Your task to perform on an android device: Open Yahoo.com Image 0: 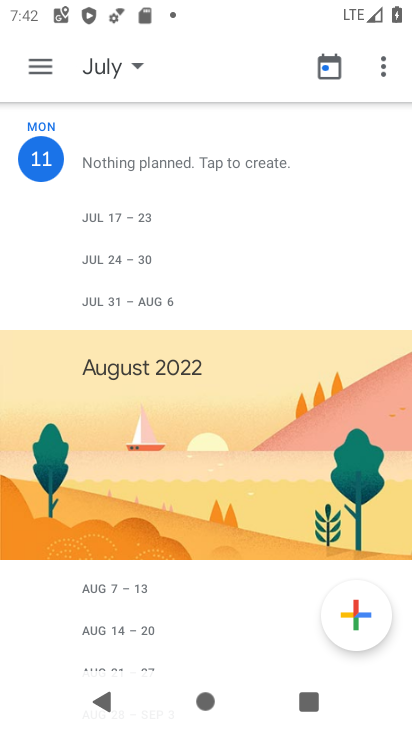
Step 0: press home button
Your task to perform on an android device: Open Yahoo.com Image 1: 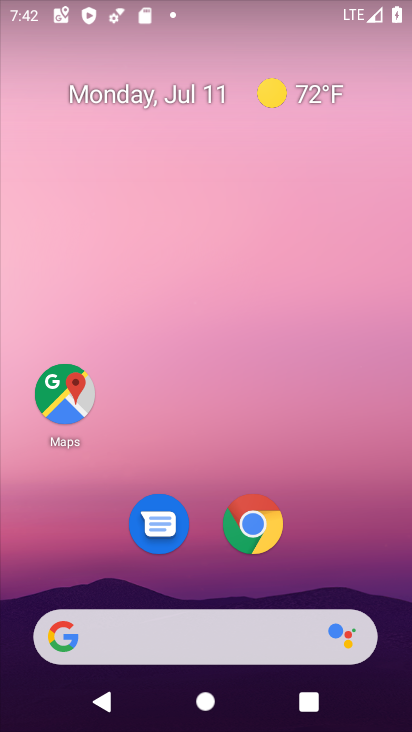
Step 1: click (272, 636)
Your task to perform on an android device: Open Yahoo.com Image 2: 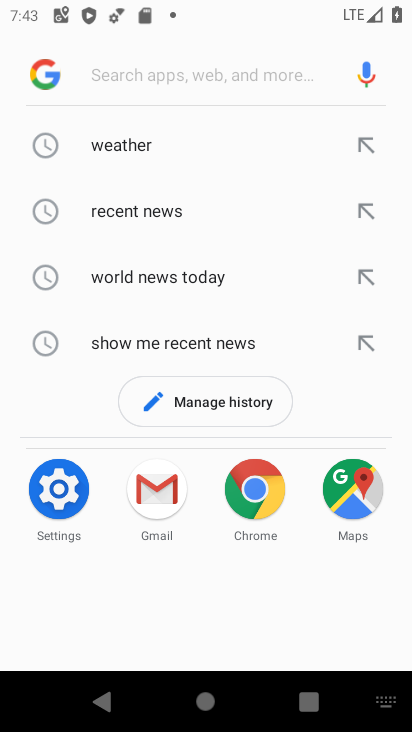
Step 2: type "yahoo.com"
Your task to perform on an android device: Open Yahoo.com Image 3: 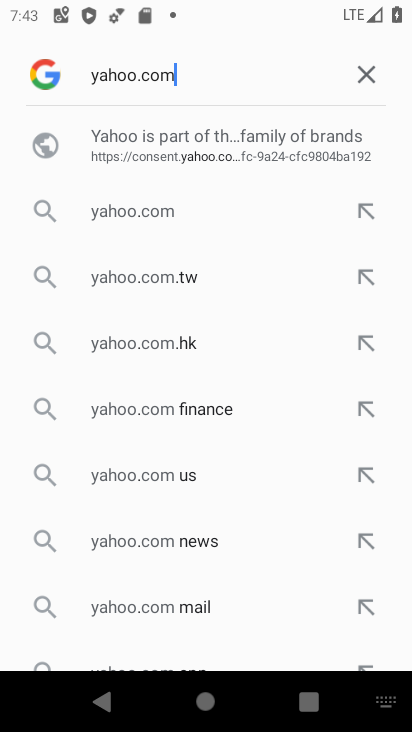
Step 3: click (115, 202)
Your task to perform on an android device: Open Yahoo.com Image 4: 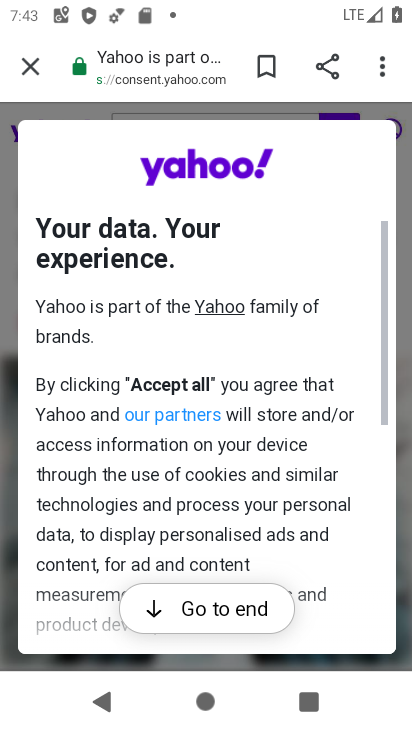
Step 4: click (224, 617)
Your task to perform on an android device: Open Yahoo.com Image 5: 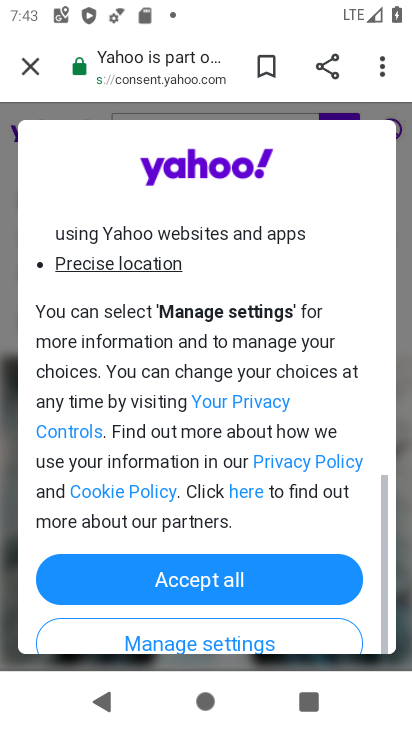
Step 5: click (232, 573)
Your task to perform on an android device: Open Yahoo.com Image 6: 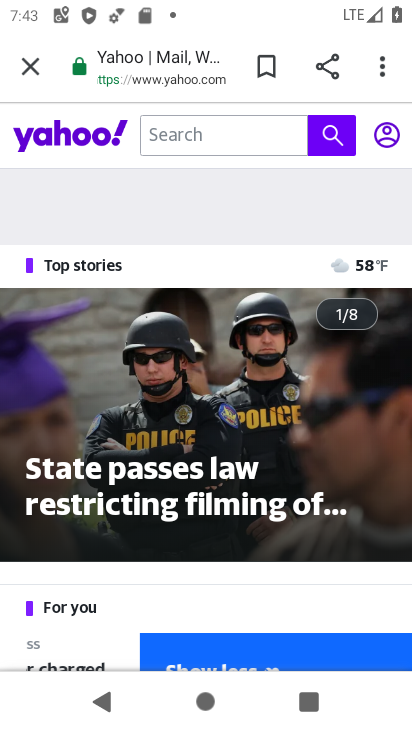
Step 6: task complete